Your task to perform on an android device: change alarm snooze length Image 0: 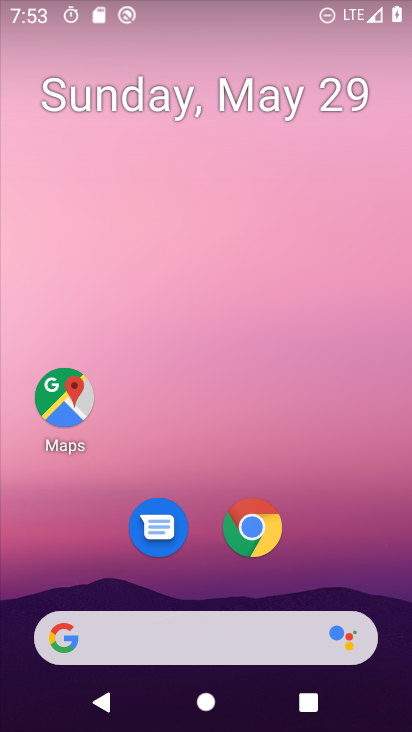
Step 0: drag from (399, 629) to (252, 1)
Your task to perform on an android device: change alarm snooze length Image 1: 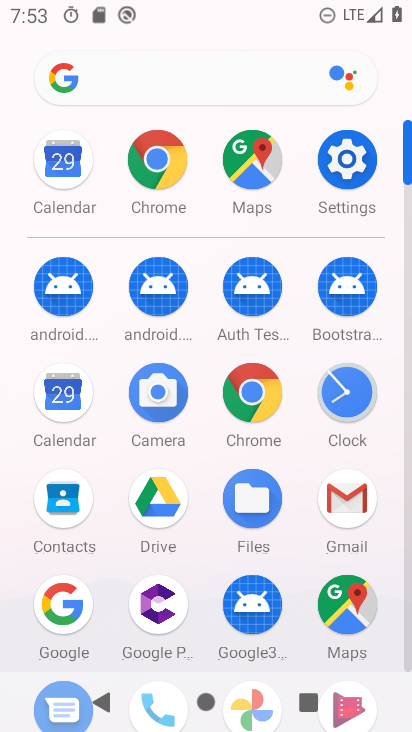
Step 1: click (358, 416)
Your task to perform on an android device: change alarm snooze length Image 2: 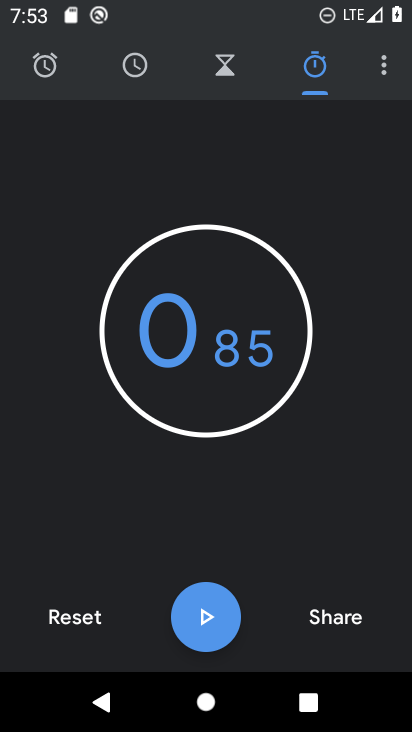
Step 2: click (391, 71)
Your task to perform on an android device: change alarm snooze length Image 3: 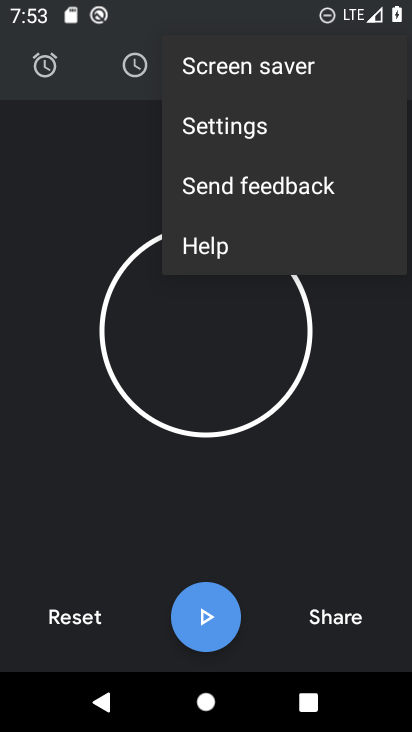
Step 3: click (221, 126)
Your task to perform on an android device: change alarm snooze length Image 4: 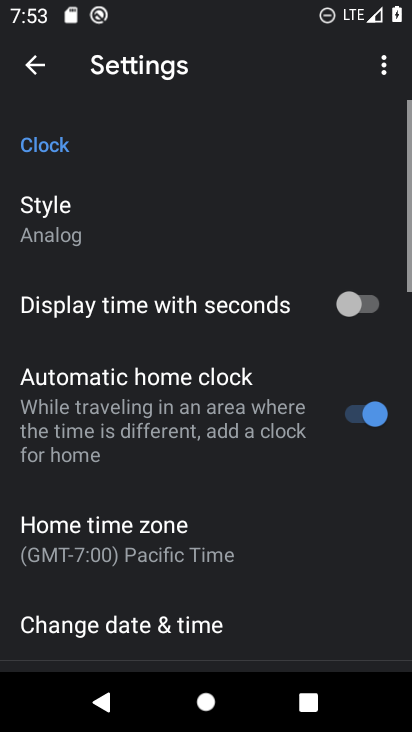
Step 4: drag from (169, 521) to (190, 79)
Your task to perform on an android device: change alarm snooze length Image 5: 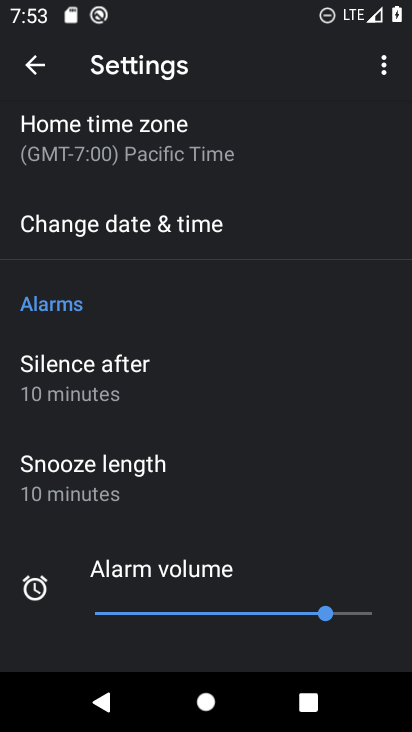
Step 5: click (160, 479)
Your task to perform on an android device: change alarm snooze length Image 6: 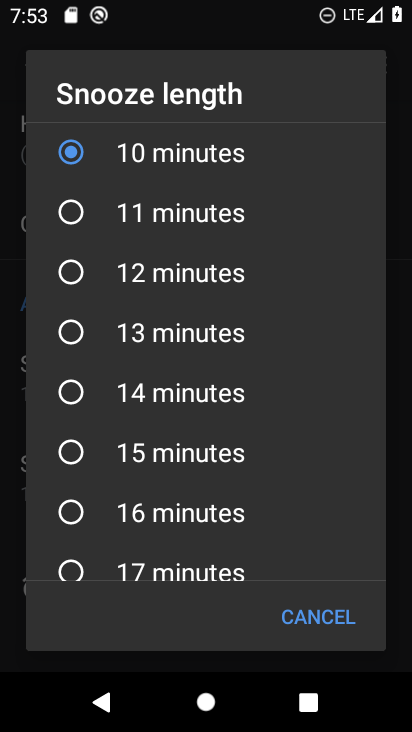
Step 6: click (79, 447)
Your task to perform on an android device: change alarm snooze length Image 7: 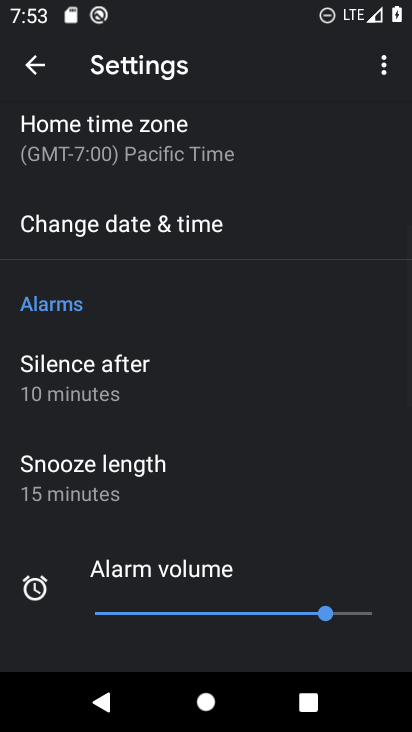
Step 7: task complete